Your task to perform on an android device: toggle sleep mode Image 0: 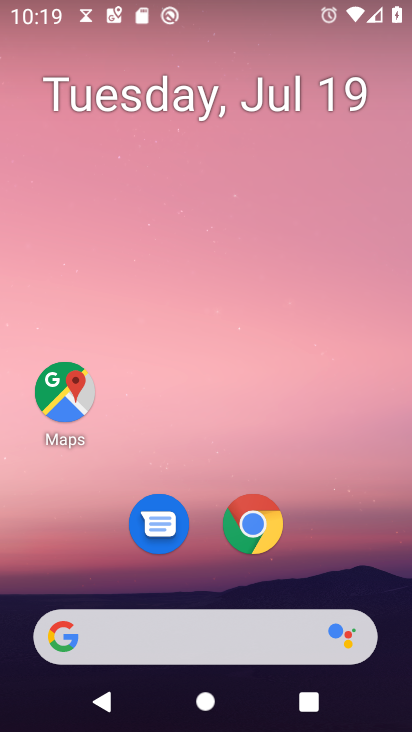
Step 0: press home button
Your task to perform on an android device: toggle sleep mode Image 1: 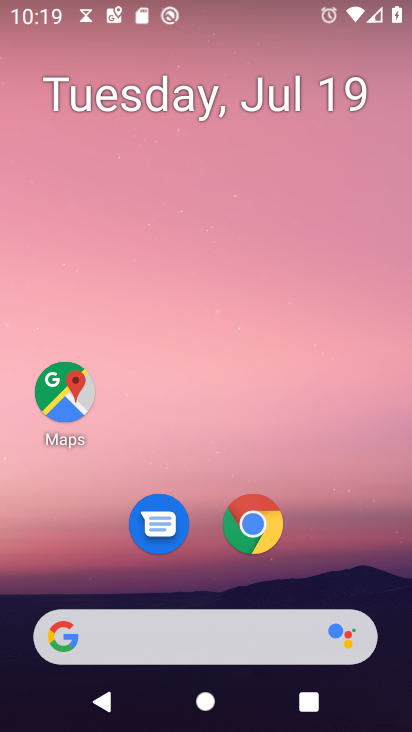
Step 1: drag from (226, 612) to (327, 2)
Your task to perform on an android device: toggle sleep mode Image 2: 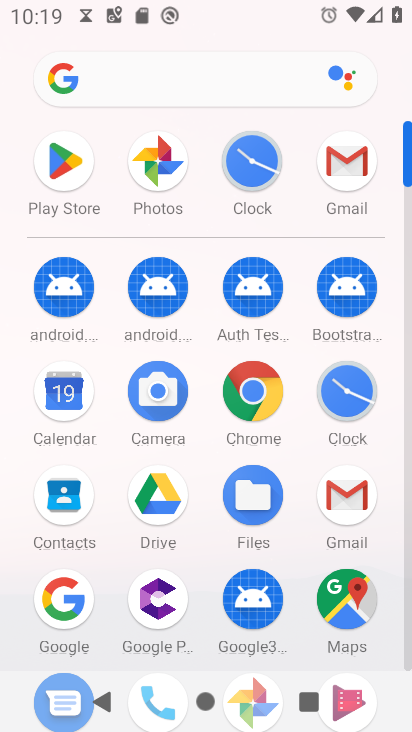
Step 2: drag from (208, 551) to (383, 144)
Your task to perform on an android device: toggle sleep mode Image 3: 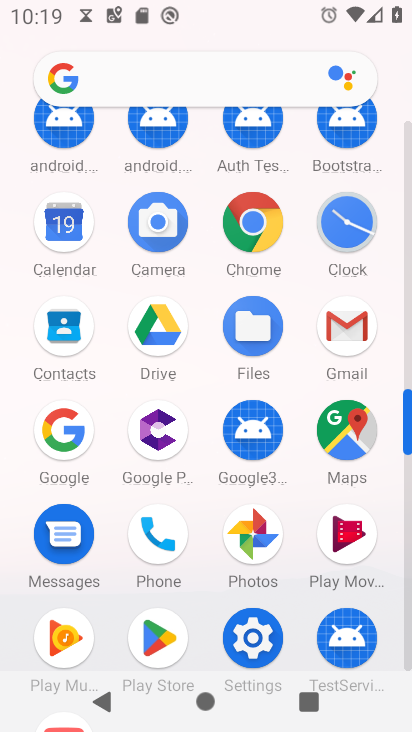
Step 3: drag from (207, 565) to (310, 169)
Your task to perform on an android device: toggle sleep mode Image 4: 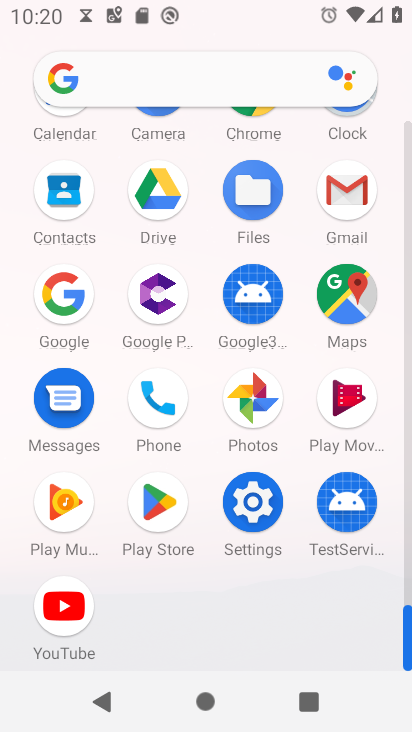
Step 4: click (256, 498)
Your task to perform on an android device: toggle sleep mode Image 5: 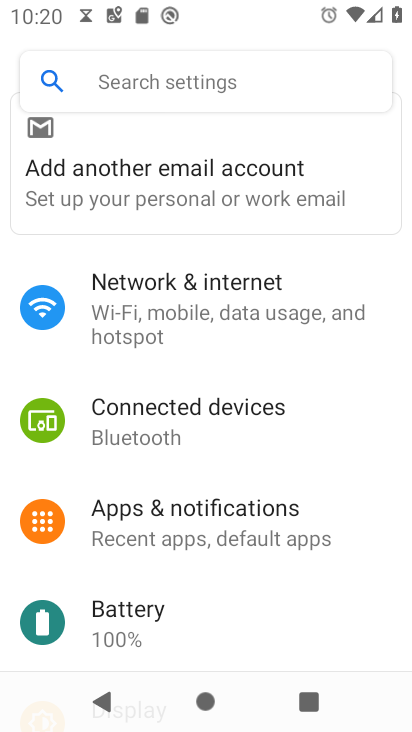
Step 5: drag from (246, 565) to (313, 176)
Your task to perform on an android device: toggle sleep mode Image 6: 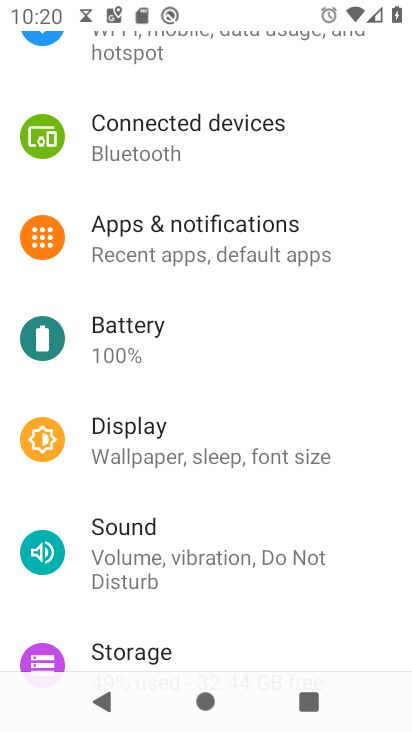
Step 6: click (193, 444)
Your task to perform on an android device: toggle sleep mode Image 7: 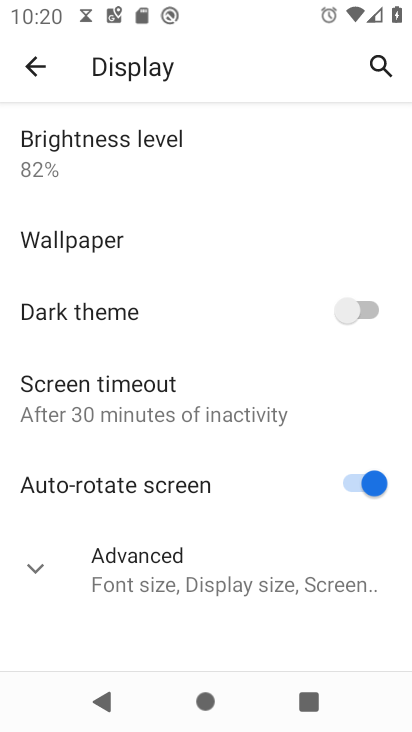
Step 7: click (67, 569)
Your task to perform on an android device: toggle sleep mode Image 8: 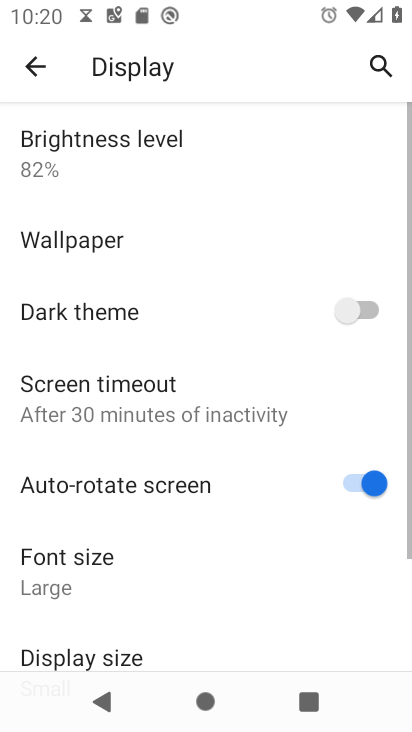
Step 8: task complete